Your task to perform on an android device: Open privacy settings Image 0: 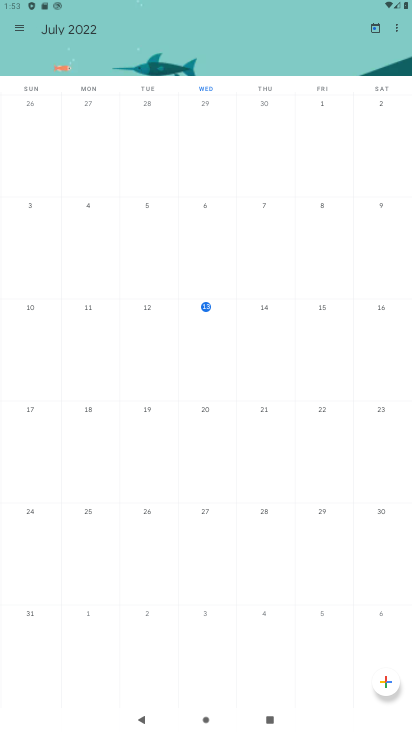
Step 0: press home button
Your task to perform on an android device: Open privacy settings Image 1: 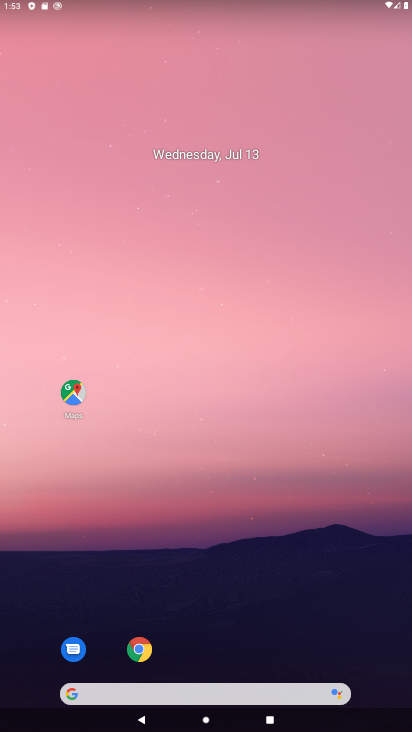
Step 1: drag from (228, 600) to (256, 24)
Your task to perform on an android device: Open privacy settings Image 2: 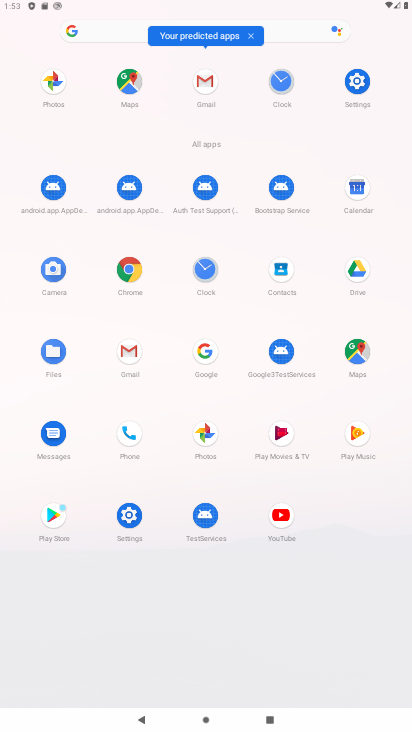
Step 2: click (356, 73)
Your task to perform on an android device: Open privacy settings Image 3: 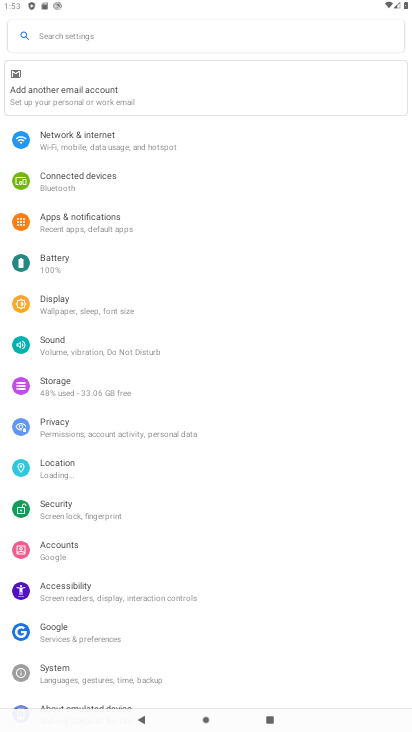
Step 3: click (80, 436)
Your task to perform on an android device: Open privacy settings Image 4: 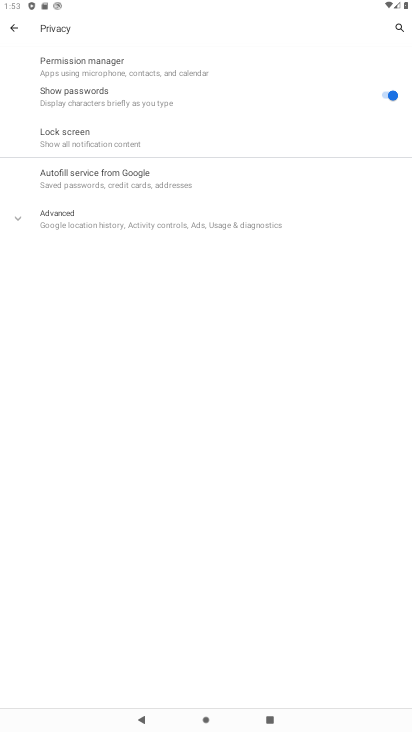
Step 4: task complete